Your task to perform on an android device: Is it going to rain this weekend? Image 0: 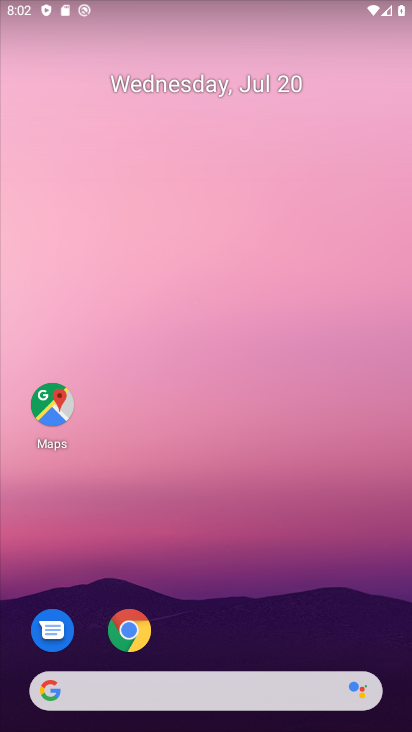
Step 0: drag from (392, 697) to (302, 73)
Your task to perform on an android device: Is it going to rain this weekend? Image 1: 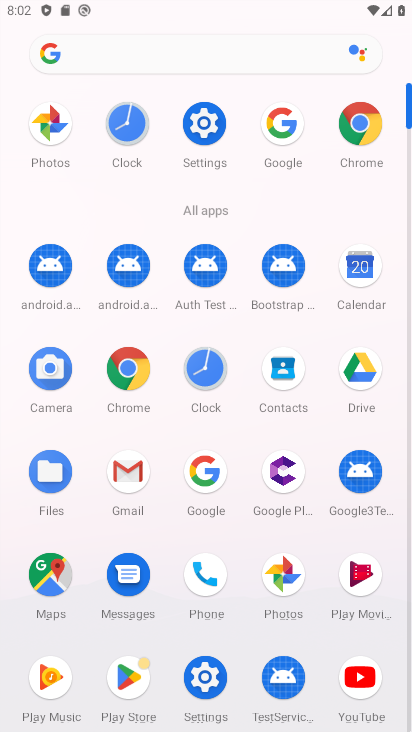
Step 1: click (221, 475)
Your task to perform on an android device: Is it going to rain this weekend? Image 2: 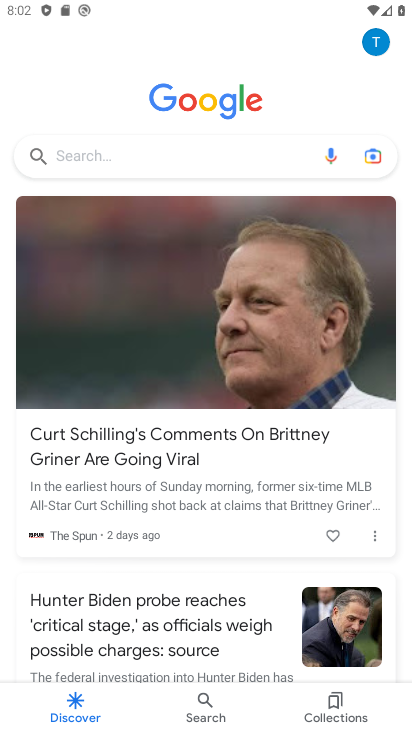
Step 2: task complete